Your task to perform on an android device: Go to wifi settings Image 0: 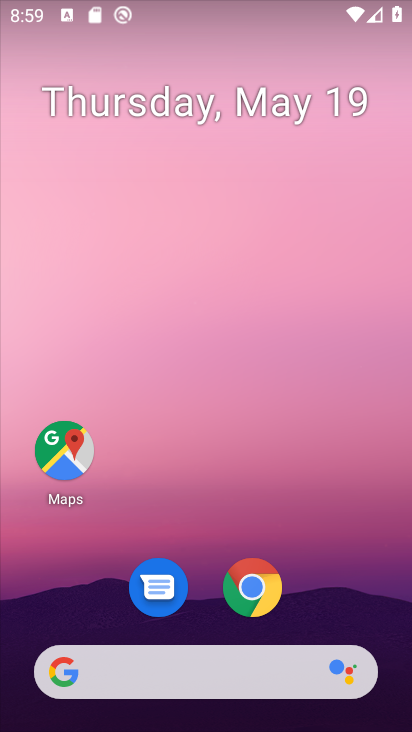
Step 0: click (169, 371)
Your task to perform on an android device: Go to wifi settings Image 1: 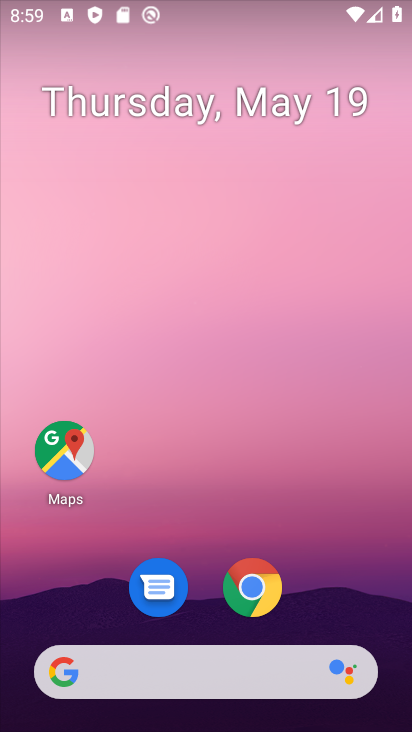
Step 1: drag from (372, 582) to (279, 119)
Your task to perform on an android device: Go to wifi settings Image 2: 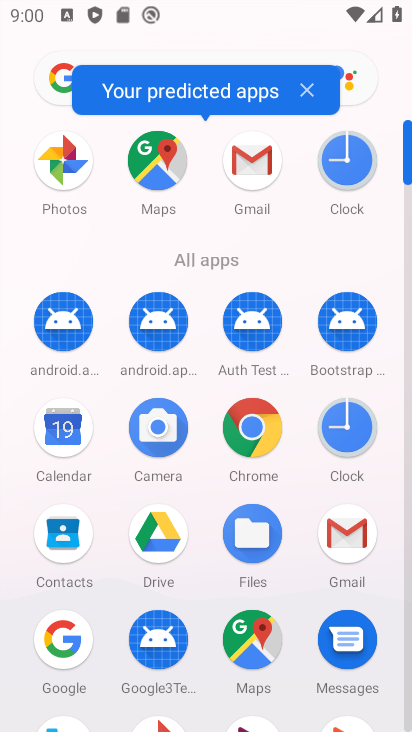
Step 2: drag from (386, 471) to (334, 185)
Your task to perform on an android device: Go to wifi settings Image 3: 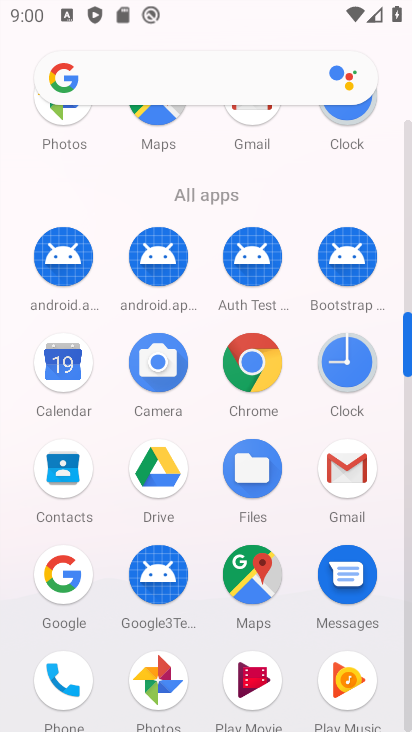
Step 3: drag from (409, 577) to (360, 337)
Your task to perform on an android device: Go to wifi settings Image 4: 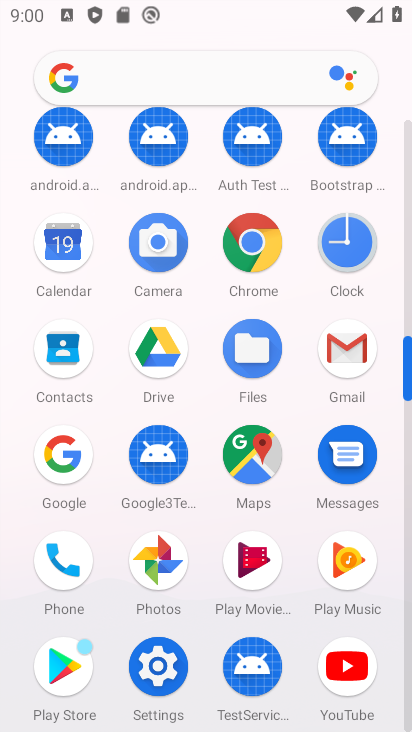
Step 4: click (156, 653)
Your task to perform on an android device: Go to wifi settings Image 5: 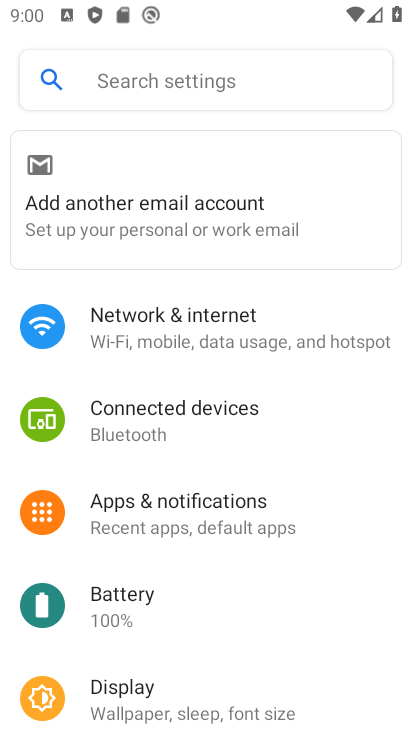
Step 5: click (157, 346)
Your task to perform on an android device: Go to wifi settings Image 6: 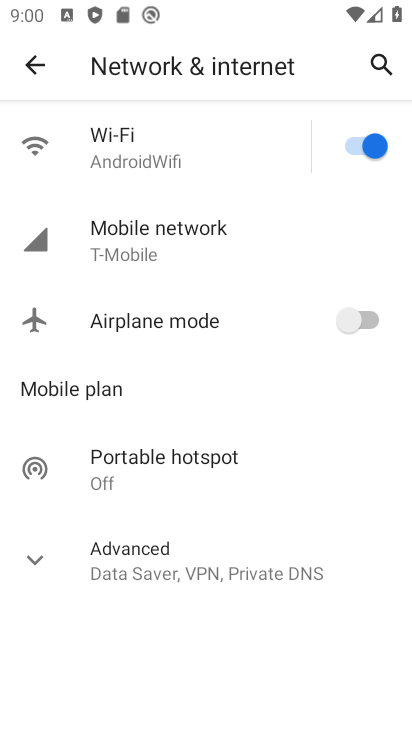
Step 6: click (135, 160)
Your task to perform on an android device: Go to wifi settings Image 7: 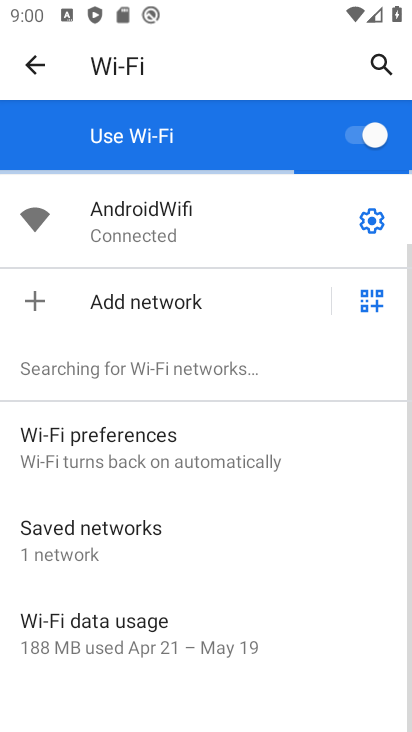
Step 7: task complete